Your task to perform on an android device: visit the assistant section in the google photos Image 0: 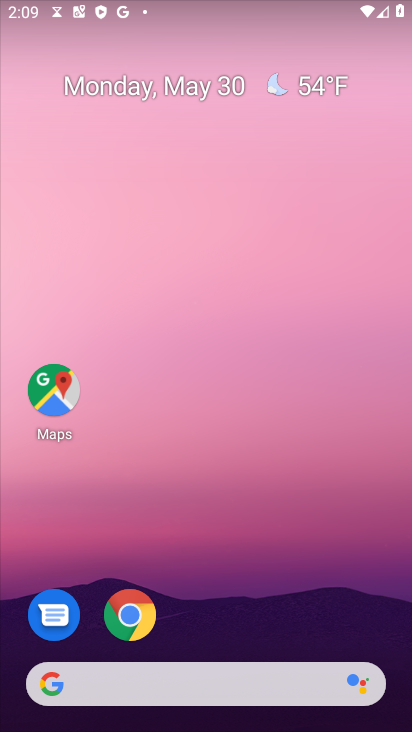
Step 0: drag from (353, 605) to (354, 102)
Your task to perform on an android device: visit the assistant section in the google photos Image 1: 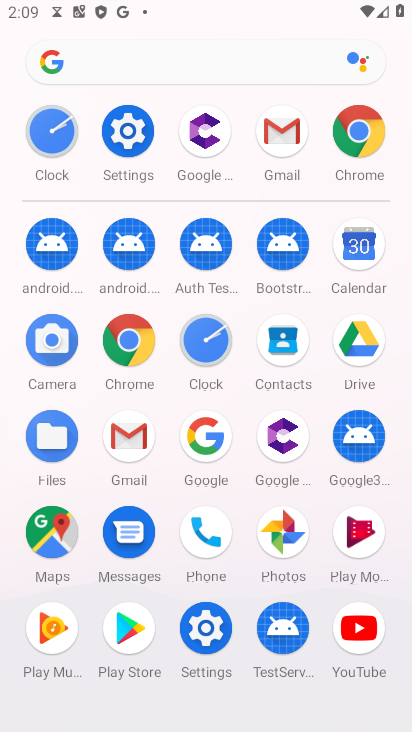
Step 1: click (272, 546)
Your task to perform on an android device: visit the assistant section in the google photos Image 2: 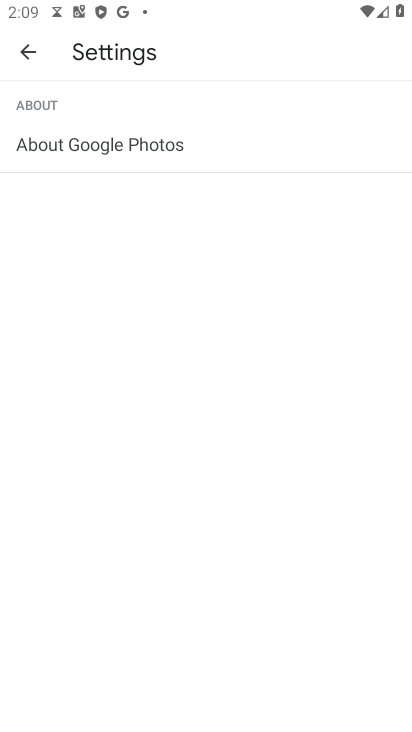
Step 2: click (16, 65)
Your task to perform on an android device: visit the assistant section in the google photos Image 3: 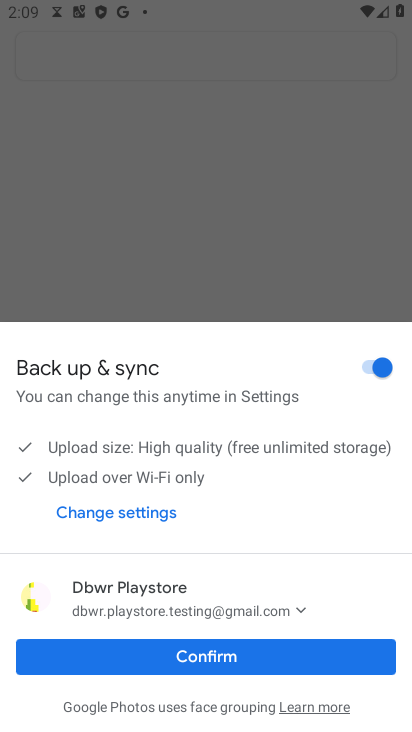
Step 3: click (256, 720)
Your task to perform on an android device: visit the assistant section in the google photos Image 4: 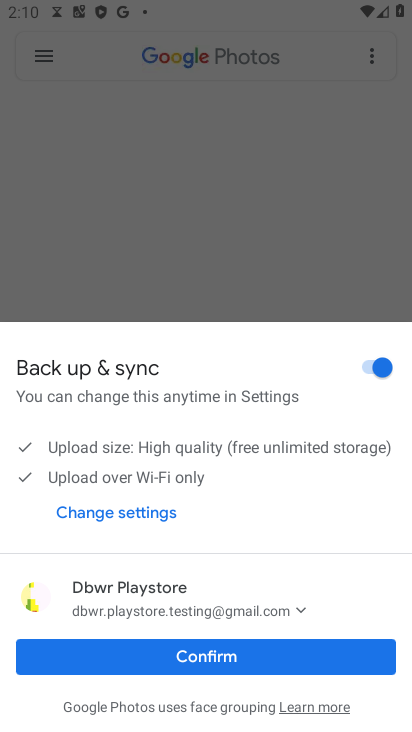
Step 4: click (225, 659)
Your task to perform on an android device: visit the assistant section in the google photos Image 5: 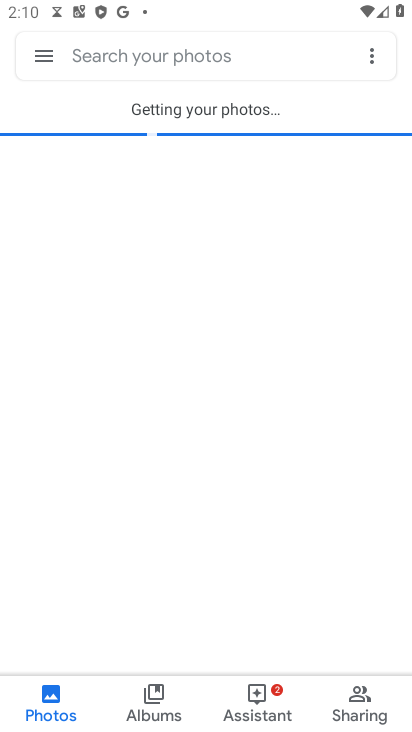
Step 5: click (237, 705)
Your task to perform on an android device: visit the assistant section in the google photos Image 6: 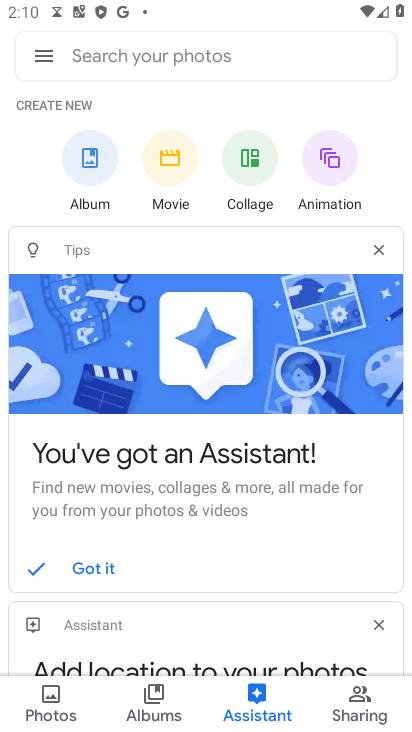
Step 6: task complete